Your task to perform on an android device: turn on location history Image 0: 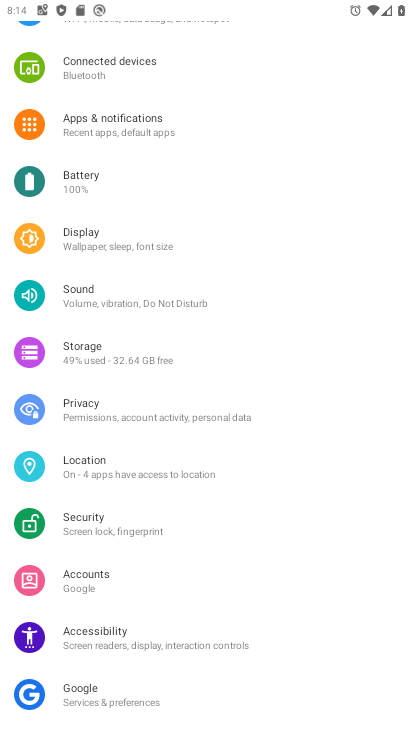
Step 0: press home button
Your task to perform on an android device: turn on location history Image 1: 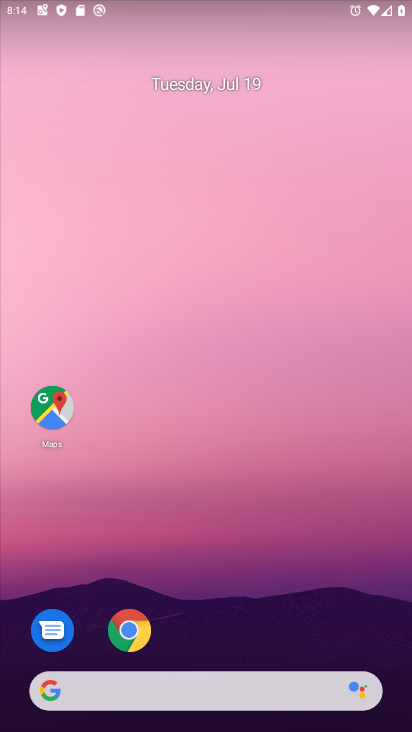
Step 1: drag from (196, 595) to (211, 213)
Your task to perform on an android device: turn on location history Image 2: 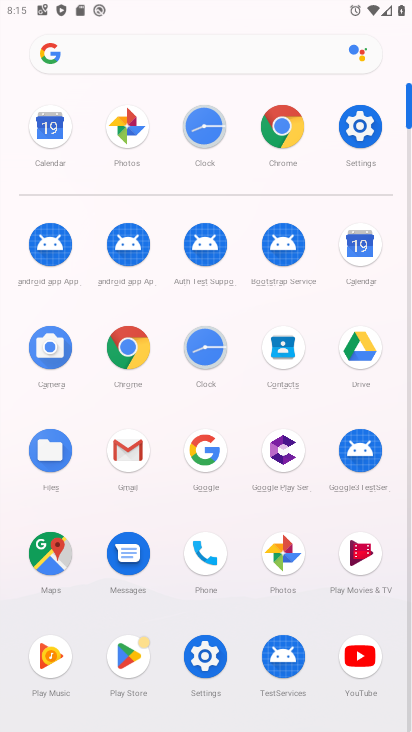
Step 2: click (355, 140)
Your task to perform on an android device: turn on location history Image 3: 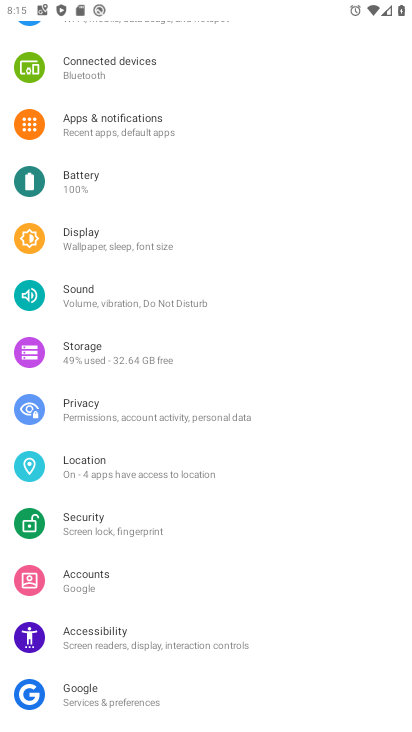
Step 3: click (63, 476)
Your task to perform on an android device: turn on location history Image 4: 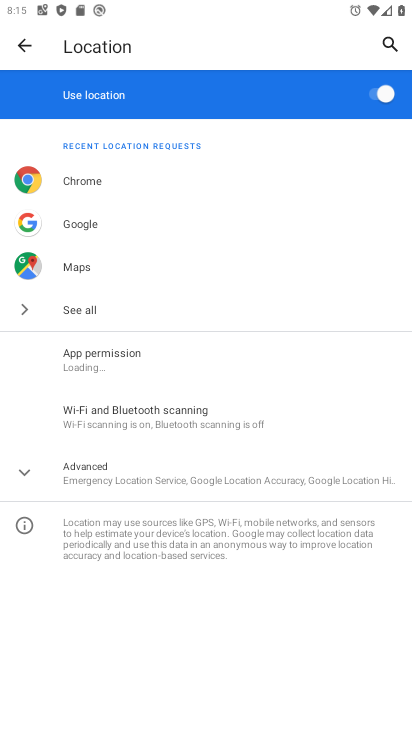
Step 4: drag from (243, 238) to (143, 358)
Your task to perform on an android device: turn on location history Image 5: 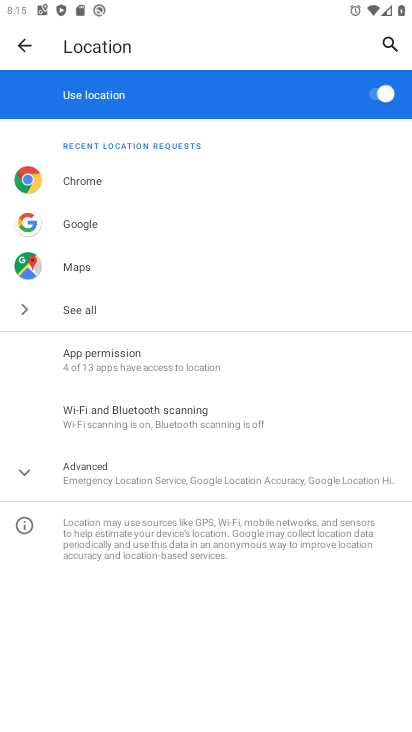
Step 5: click (70, 479)
Your task to perform on an android device: turn on location history Image 6: 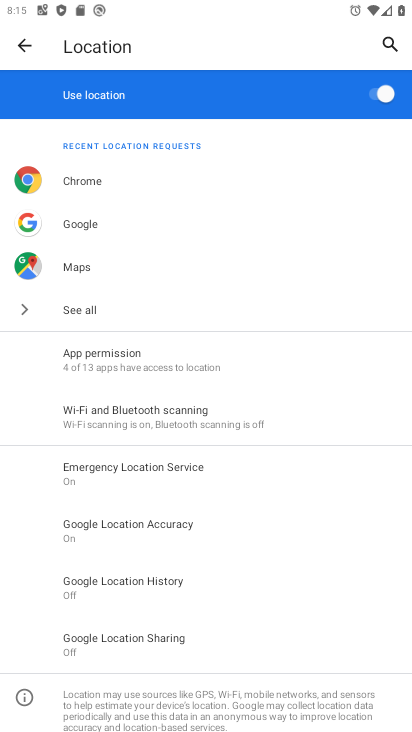
Step 6: click (108, 576)
Your task to perform on an android device: turn on location history Image 7: 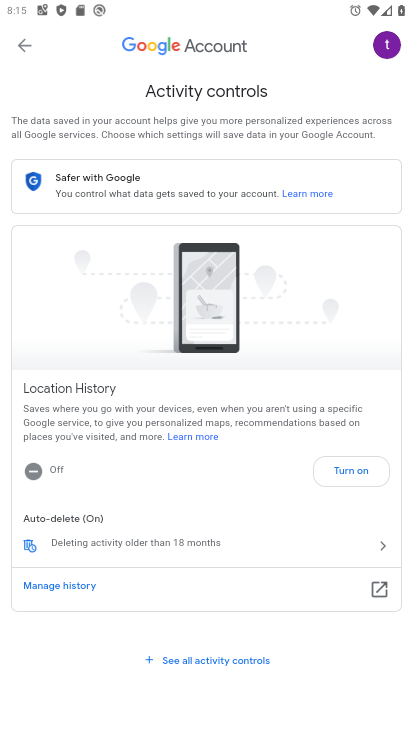
Step 7: click (332, 468)
Your task to perform on an android device: turn on location history Image 8: 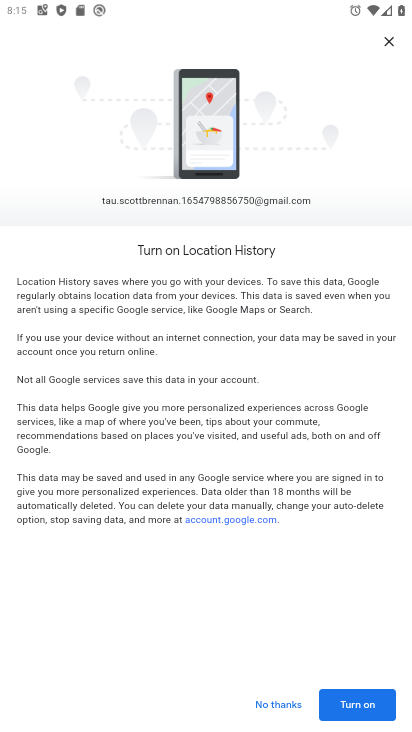
Step 8: click (345, 700)
Your task to perform on an android device: turn on location history Image 9: 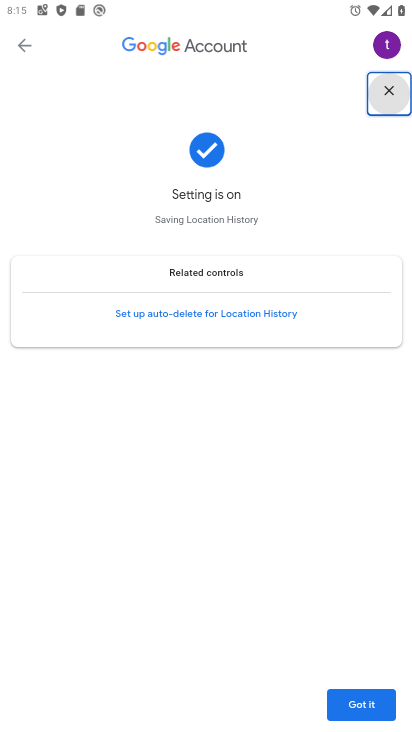
Step 9: click (345, 700)
Your task to perform on an android device: turn on location history Image 10: 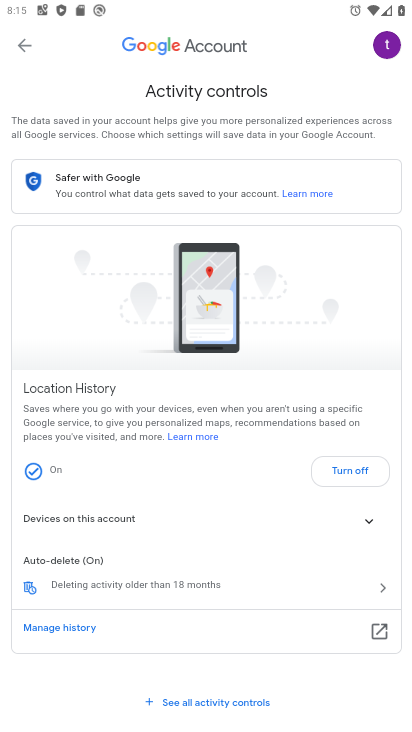
Step 10: task complete